Your task to perform on an android device: set default search engine in the chrome app Image 0: 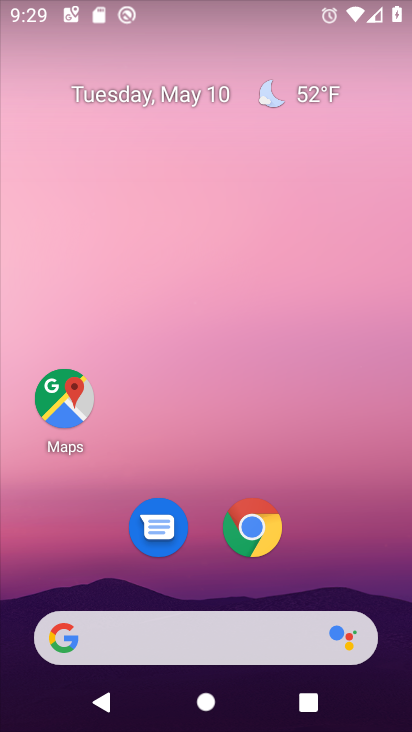
Step 0: click (265, 519)
Your task to perform on an android device: set default search engine in the chrome app Image 1: 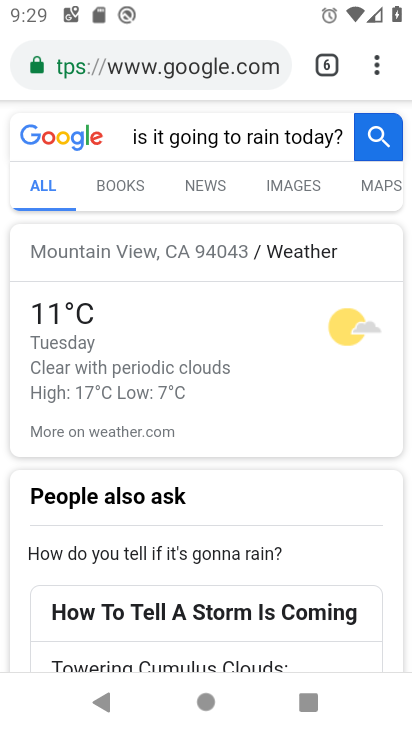
Step 1: click (373, 65)
Your task to perform on an android device: set default search engine in the chrome app Image 2: 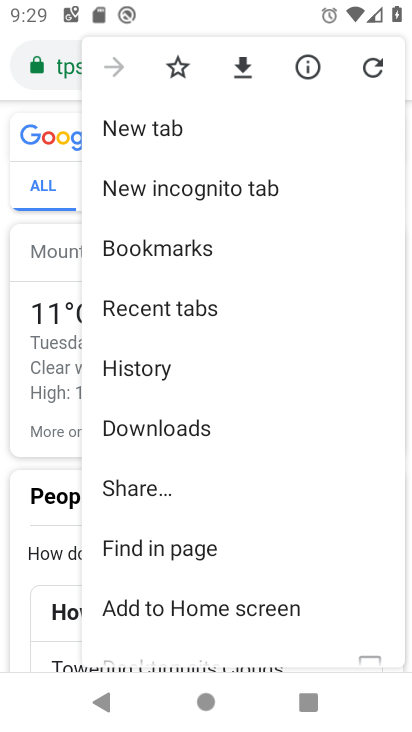
Step 2: drag from (176, 525) to (206, 249)
Your task to perform on an android device: set default search engine in the chrome app Image 3: 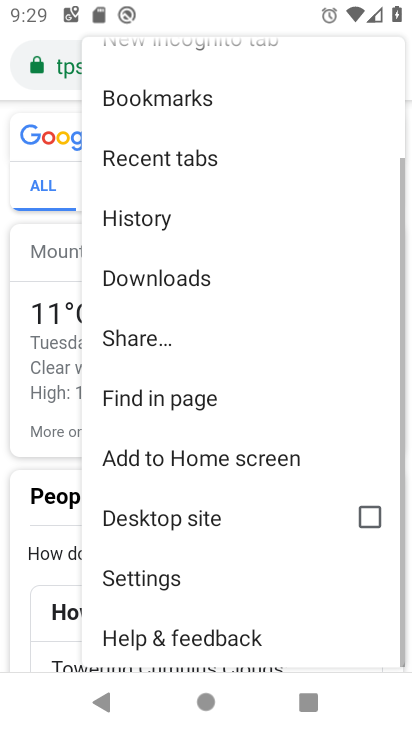
Step 3: click (178, 575)
Your task to perform on an android device: set default search engine in the chrome app Image 4: 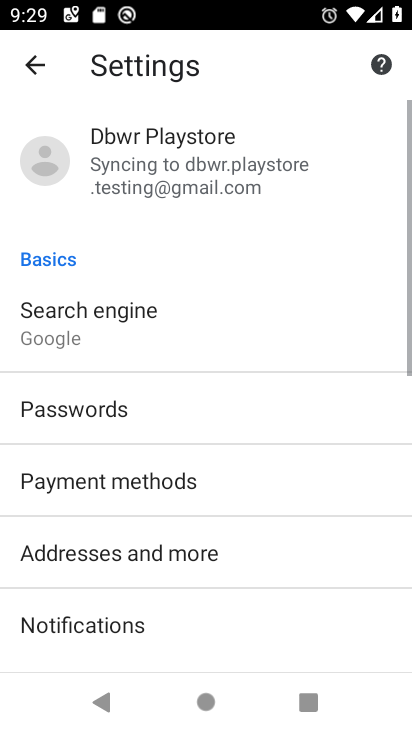
Step 4: click (78, 328)
Your task to perform on an android device: set default search engine in the chrome app Image 5: 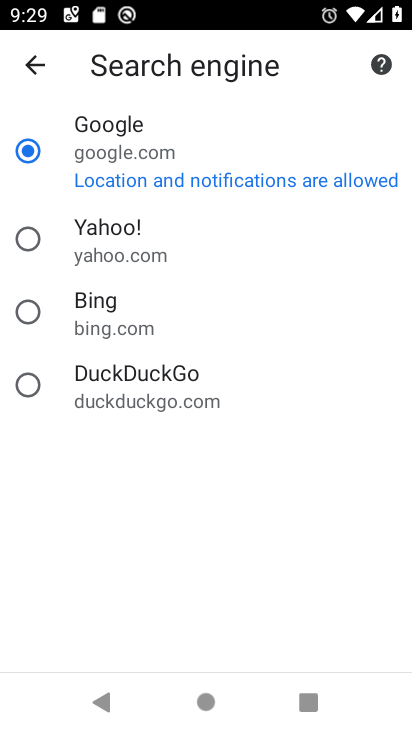
Step 5: click (123, 392)
Your task to perform on an android device: set default search engine in the chrome app Image 6: 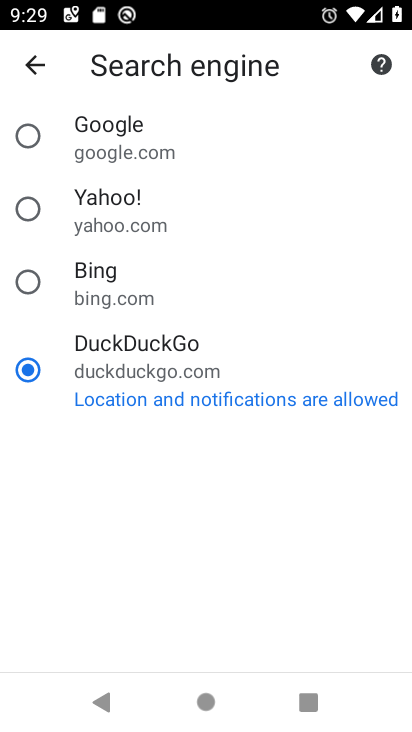
Step 6: task complete